Your task to perform on an android device: delete a single message in the gmail app Image 0: 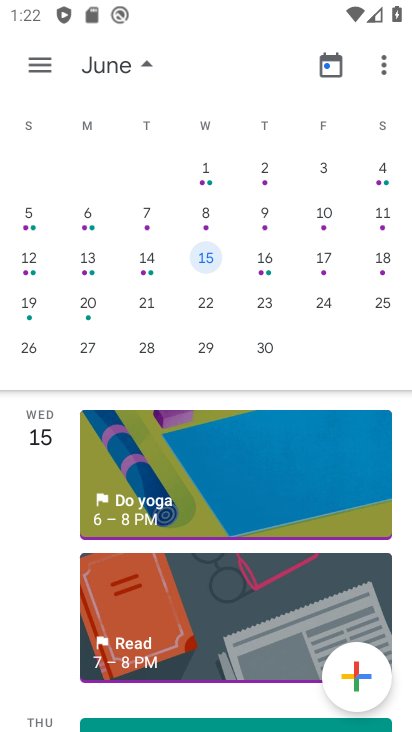
Step 0: press home button
Your task to perform on an android device: delete a single message in the gmail app Image 1: 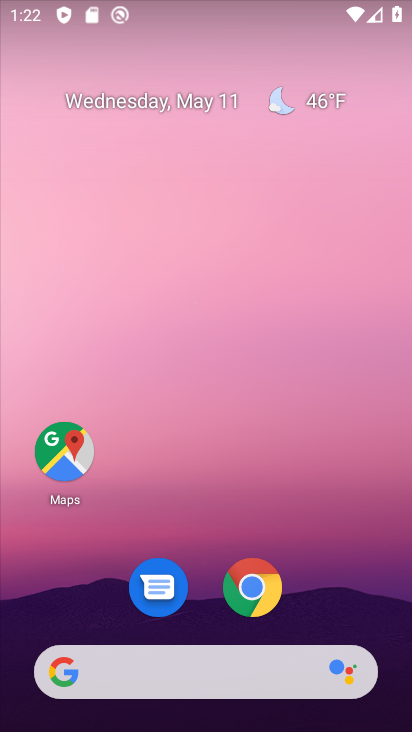
Step 1: press home button
Your task to perform on an android device: delete a single message in the gmail app Image 2: 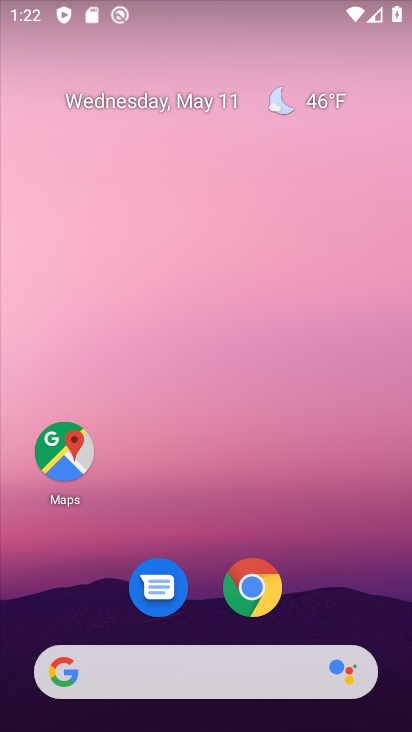
Step 2: drag from (393, 677) to (317, 274)
Your task to perform on an android device: delete a single message in the gmail app Image 3: 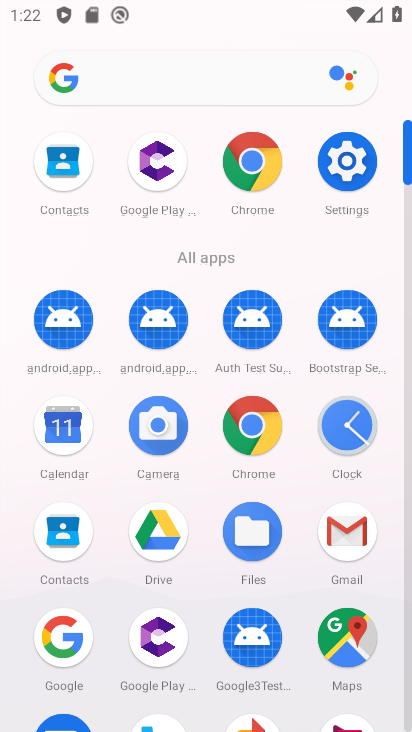
Step 3: click (410, 654)
Your task to perform on an android device: delete a single message in the gmail app Image 4: 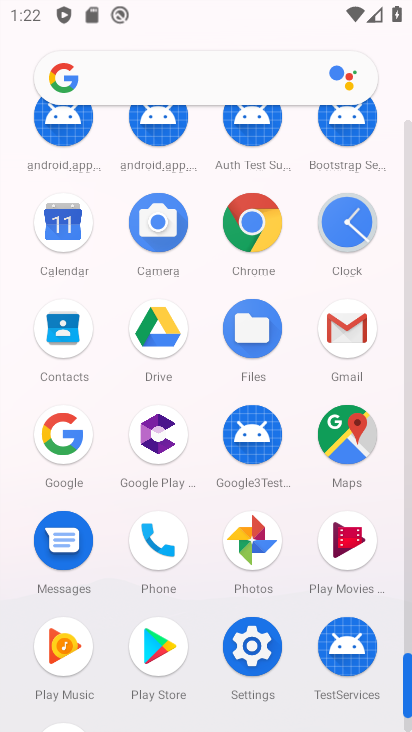
Step 4: click (405, 278)
Your task to perform on an android device: delete a single message in the gmail app Image 5: 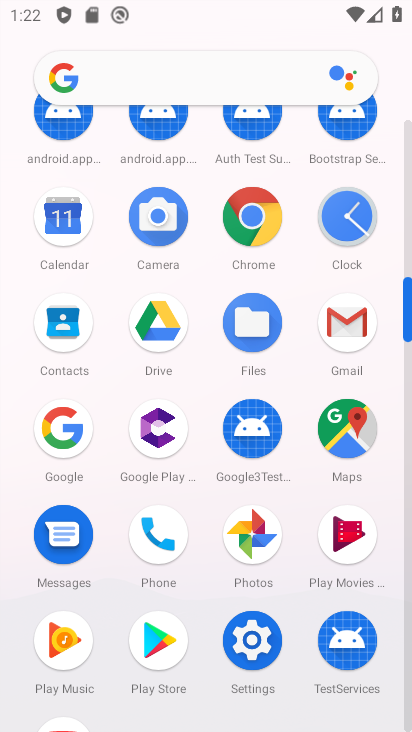
Step 5: click (405, 278)
Your task to perform on an android device: delete a single message in the gmail app Image 6: 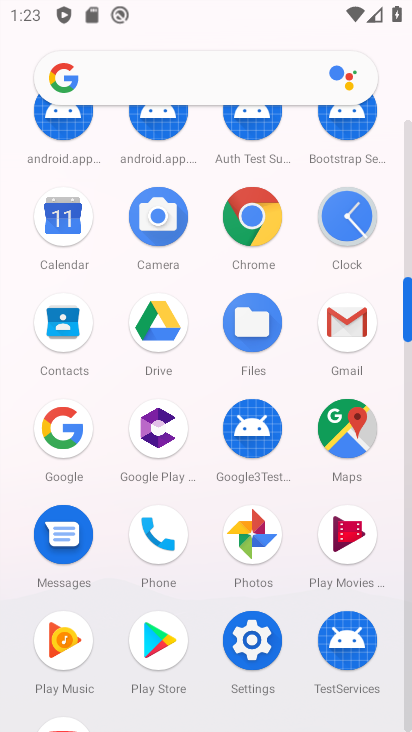
Step 6: click (406, 258)
Your task to perform on an android device: delete a single message in the gmail app Image 7: 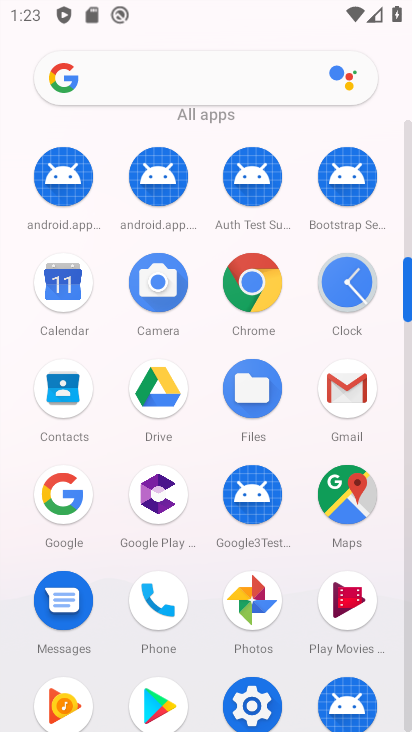
Step 7: click (406, 258)
Your task to perform on an android device: delete a single message in the gmail app Image 8: 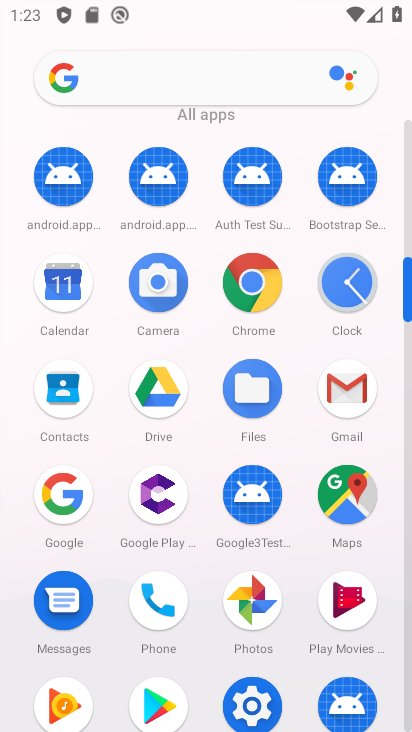
Step 8: click (406, 258)
Your task to perform on an android device: delete a single message in the gmail app Image 9: 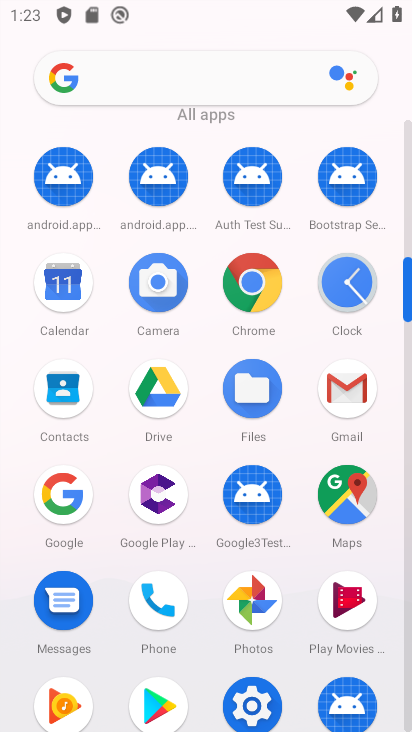
Step 9: click (406, 258)
Your task to perform on an android device: delete a single message in the gmail app Image 10: 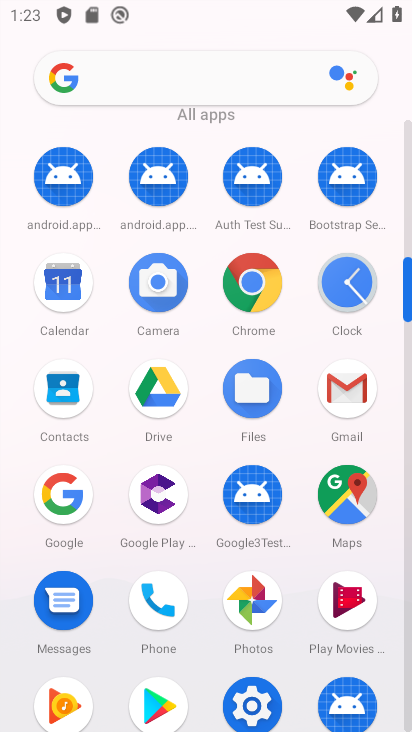
Step 10: click (410, 346)
Your task to perform on an android device: delete a single message in the gmail app Image 11: 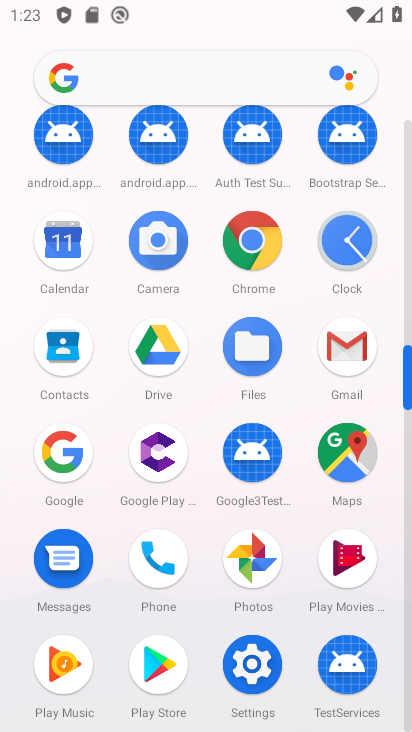
Step 11: click (410, 346)
Your task to perform on an android device: delete a single message in the gmail app Image 12: 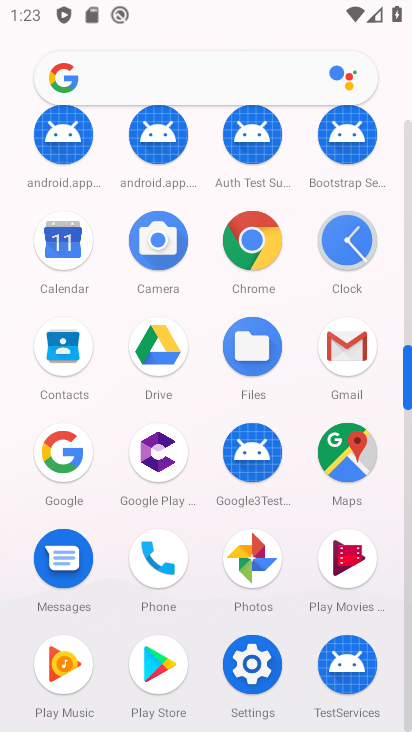
Step 12: click (410, 346)
Your task to perform on an android device: delete a single message in the gmail app Image 13: 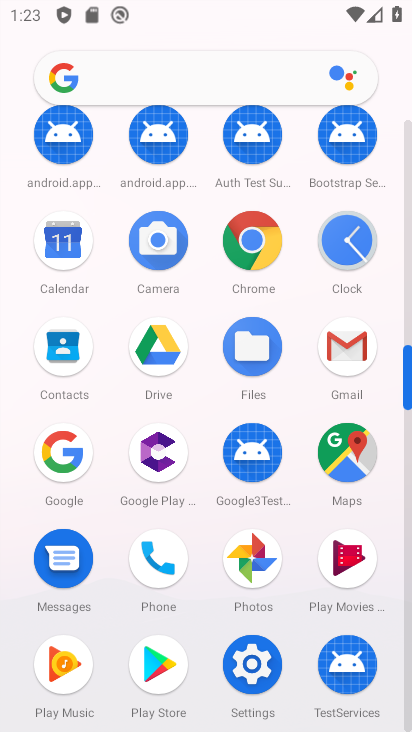
Step 13: click (410, 346)
Your task to perform on an android device: delete a single message in the gmail app Image 14: 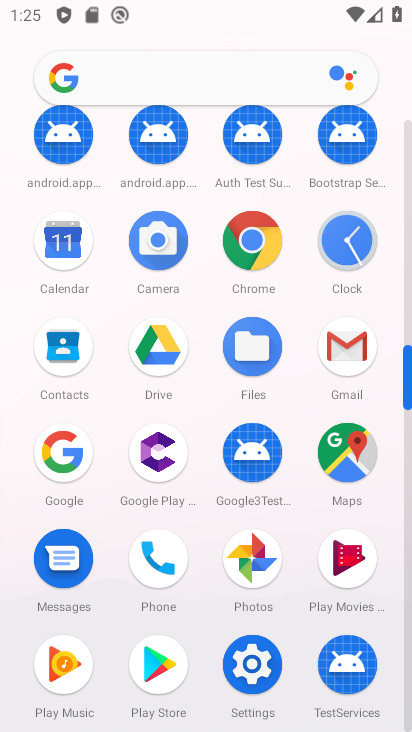
Step 14: drag from (199, 541) to (220, 356)
Your task to perform on an android device: delete a single message in the gmail app Image 15: 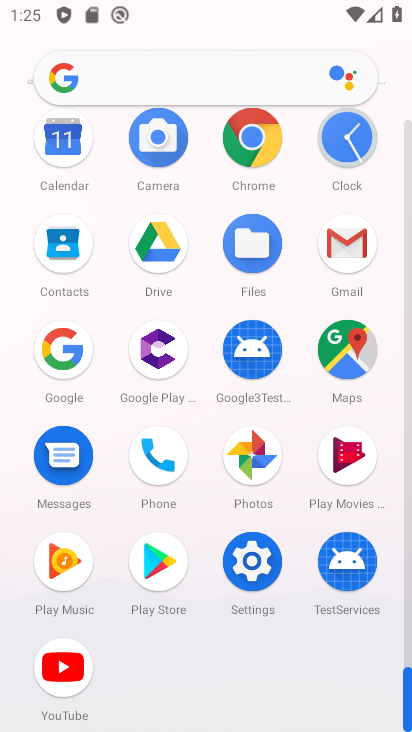
Step 15: click (362, 237)
Your task to perform on an android device: delete a single message in the gmail app Image 16: 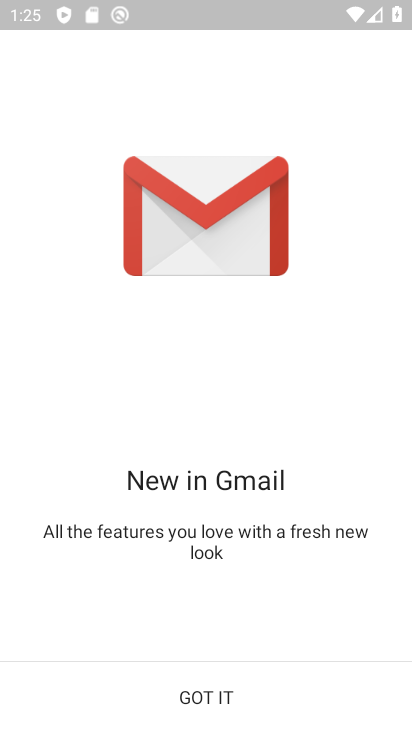
Step 16: click (218, 689)
Your task to perform on an android device: delete a single message in the gmail app Image 17: 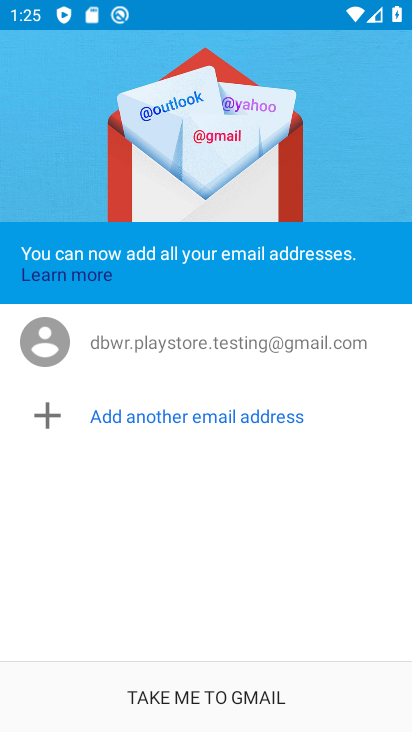
Step 17: click (218, 689)
Your task to perform on an android device: delete a single message in the gmail app Image 18: 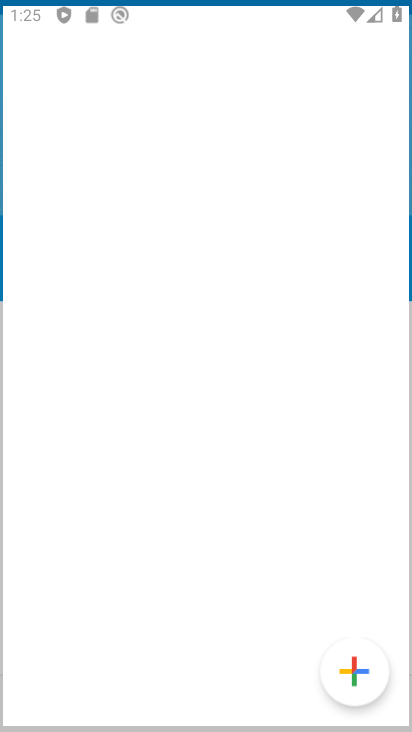
Step 18: click (218, 689)
Your task to perform on an android device: delete a single message in the gmail app Image 19: 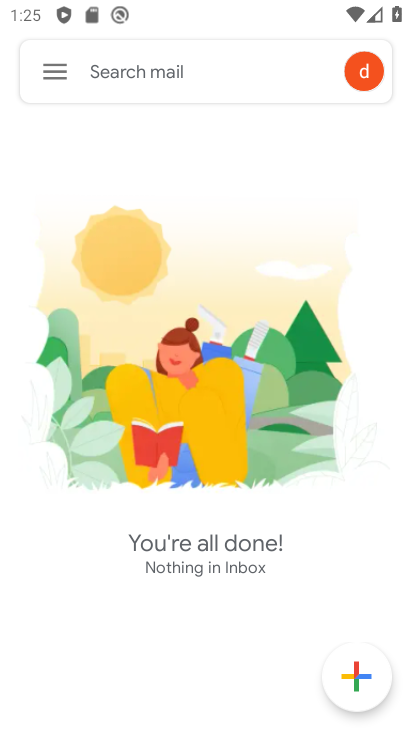
Step 19: click (48, 68)
Your task to perform on an android device: delete a single message in the gmail app Image 20: 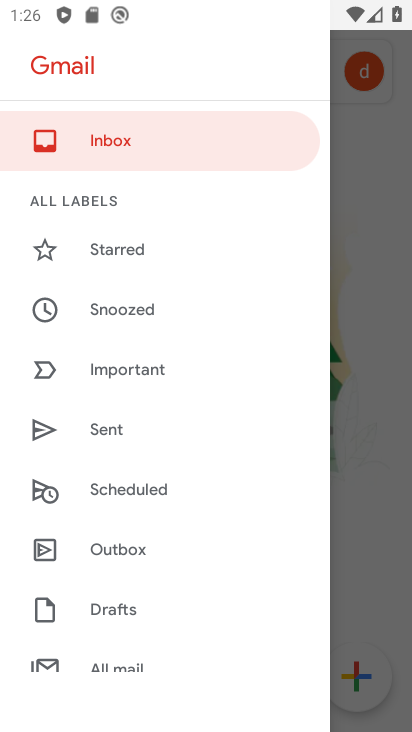
Step 20: task complete